Your task to perform on an android device: stop showing notifications on the lock screen Image 0: 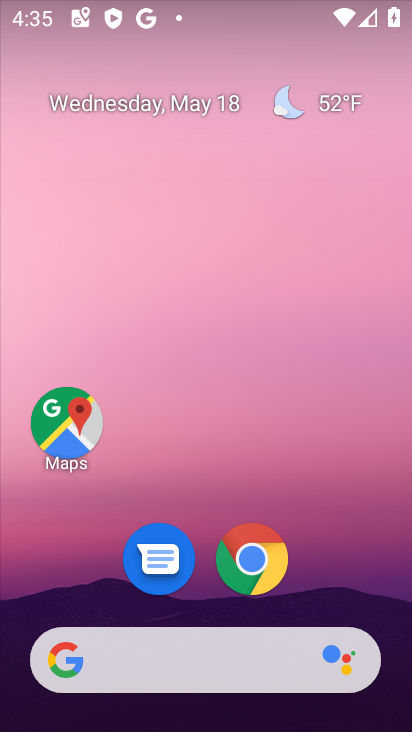
Step 0: drag from (309, 594) to (290, 1)
Your task to perform on an android device: stop showing notifications on the lock screen Image 1: 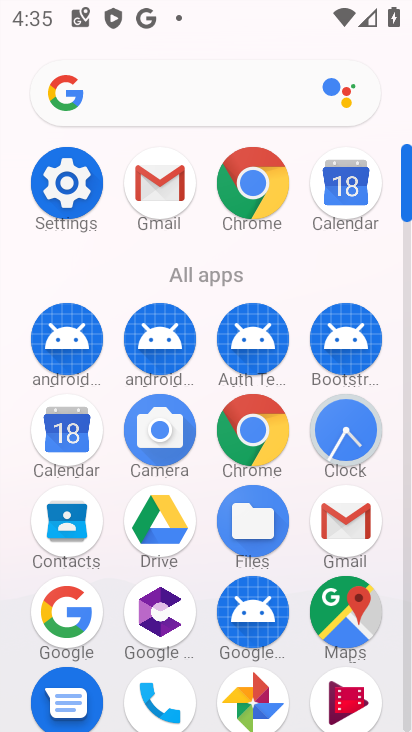
Step 1: click (65, 167)
Your task to perform on an android device: stop showing notifications on the lock screen Image 2: 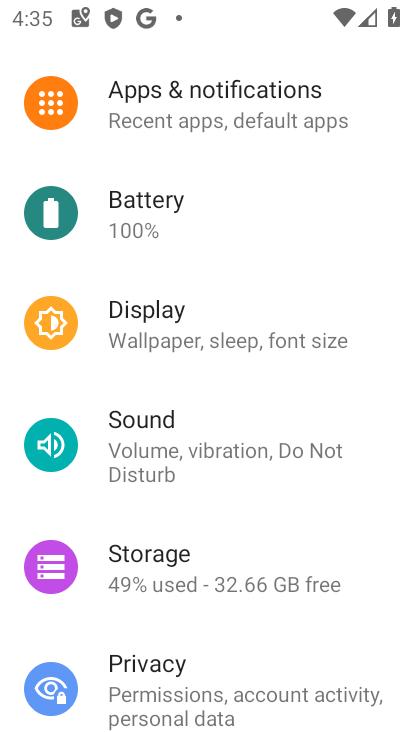
Step 2: click (228, 108)
Your task to perform on an android device: stop showing notifications on the lock screen Image 3: 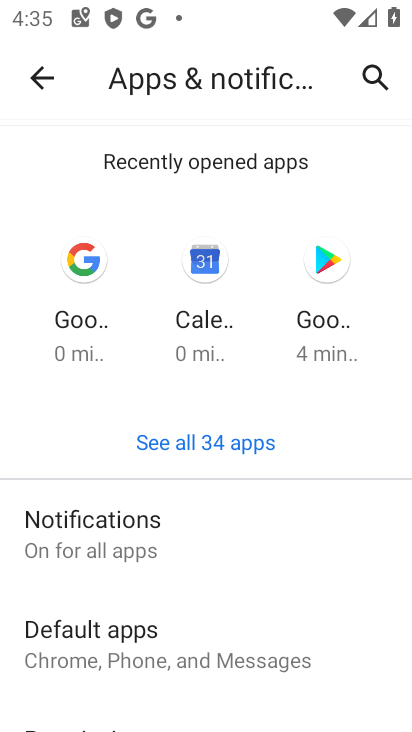
Step 3: drag from (169, 650) to (228, 196)
Your task to perform on an android device: stop showing notifications on the lock screen Image 4: 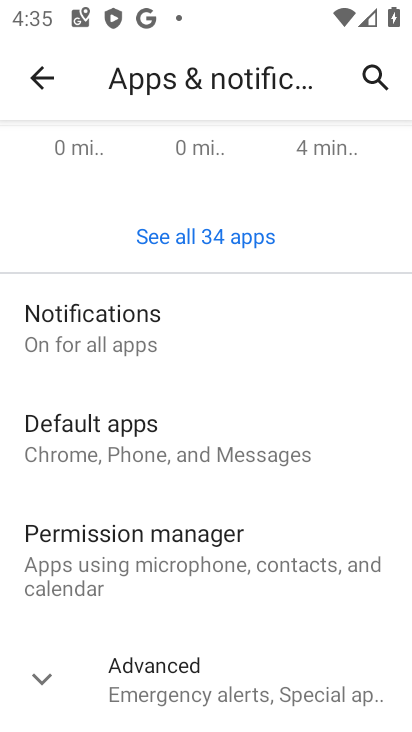
Step 4: click (150, 329)
Your task to perform on an android device: stop showing notifications on the lock screen Image 5: 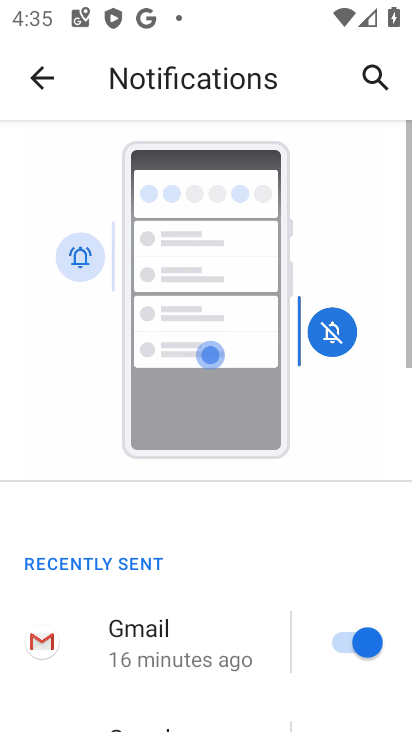
Step 5: drag from (187, 615) to (294, 47)
Your task to perform on an android device: stop showing notifications on the lock screen Image 6: 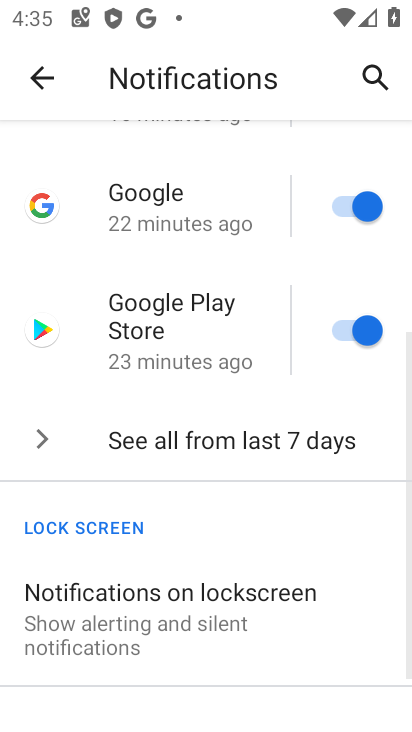
Step 6: drag from (153, 600) to (216, 272)
Your task to perform on an android device: stop showing notifications on the lock screen Image 7: 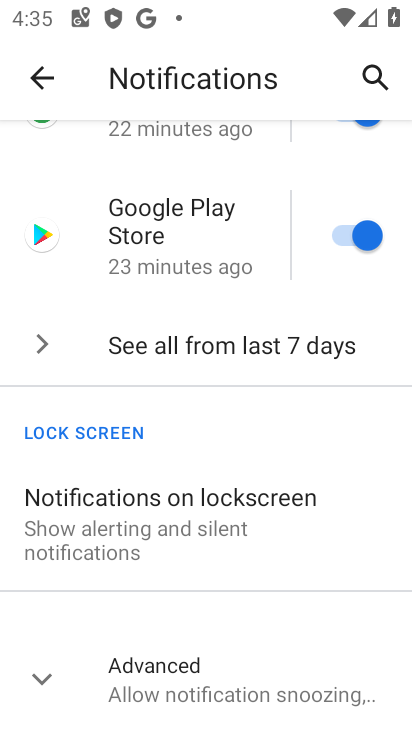
Step 7: click (116, 506)
Your task to perform on an android device: stop showing notifications on the lock screen Image 8: 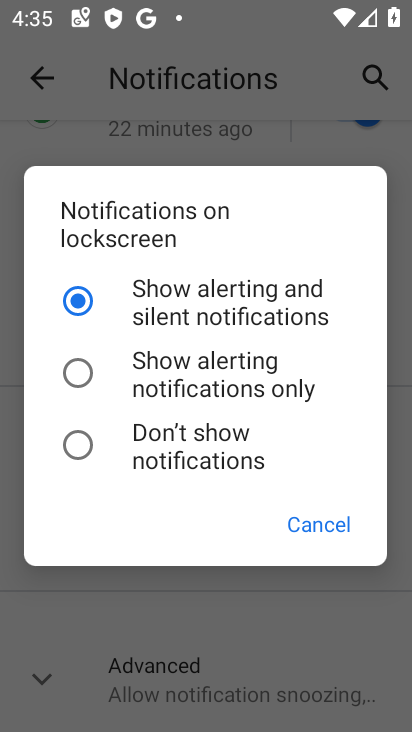
Step 8: click (85, 442)
Your task to perform on an android device: stop showing notifications on the lock screen Image 9: 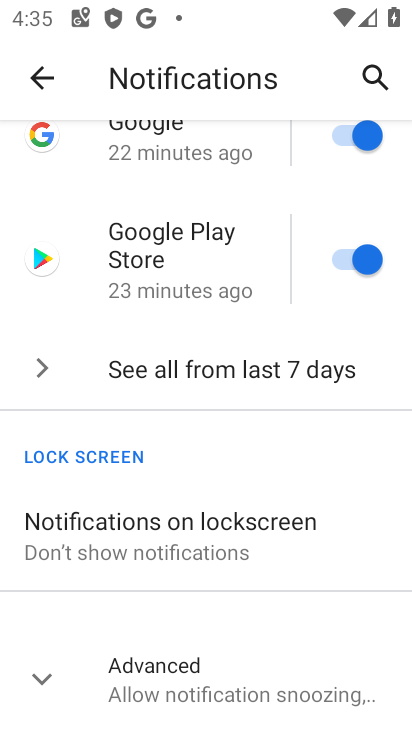
Step 9: task complete